Your task to perform on an android device: allow notifications from all sites in the chrome app Image 0: 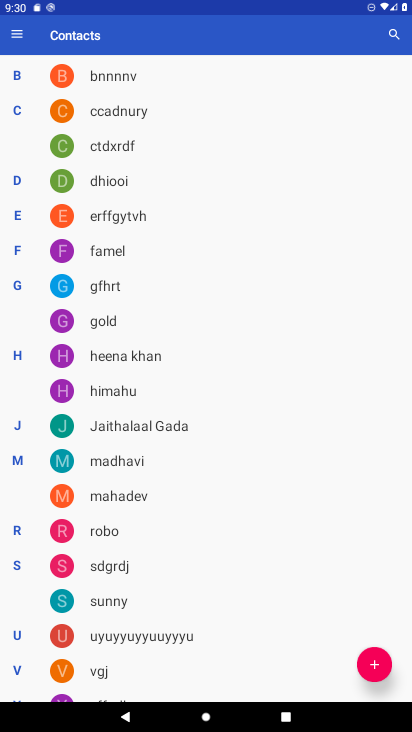
Step 0: press home button
Your task to perform on an android device: allow notifications from all sites in the chrome app Image 1: 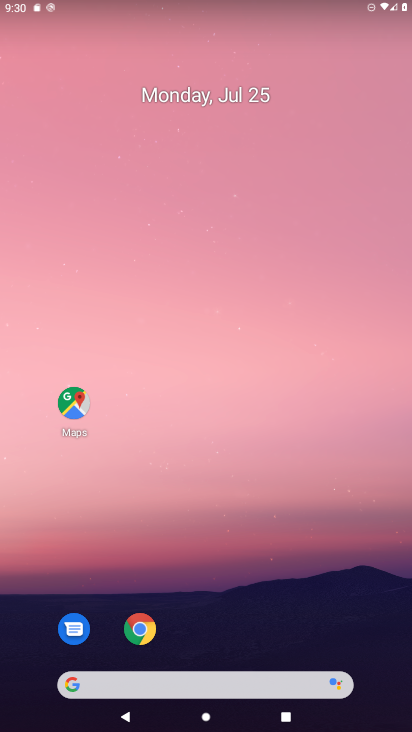
Step 1: drag from (259, 584) to (283, 718)
Your task to perform on an android device: allow notifications from all sites in the chrome app Image 2: 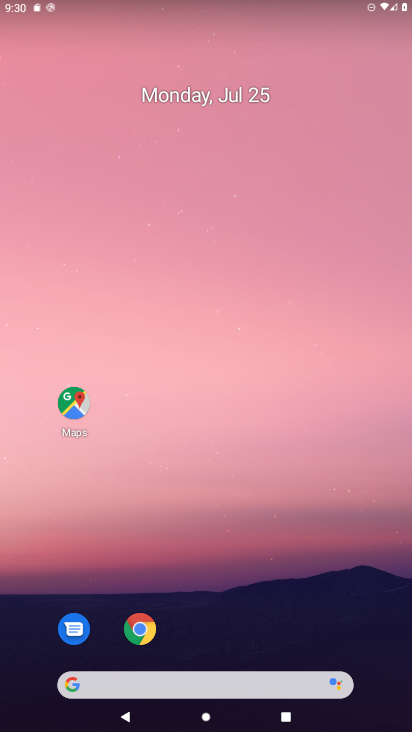
Step 2: click (139, 636)
Your task to perform on an android device: allow notifications from all sites in the chrome app Image 3: 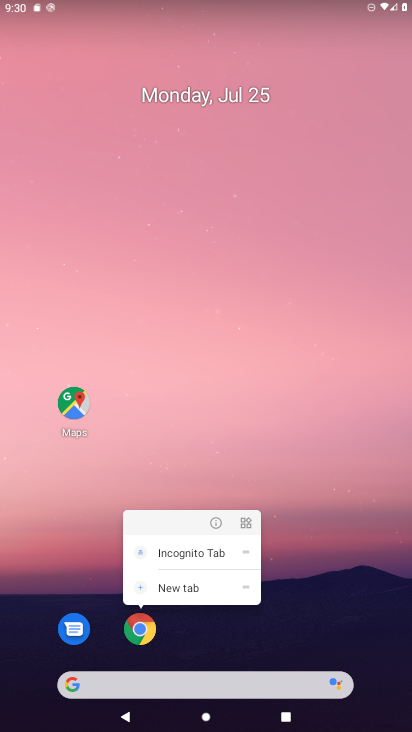
Step 3: click (139, 636)
Your task to perform on an android device: allow notifications from all sites in the chrome app Image 4: 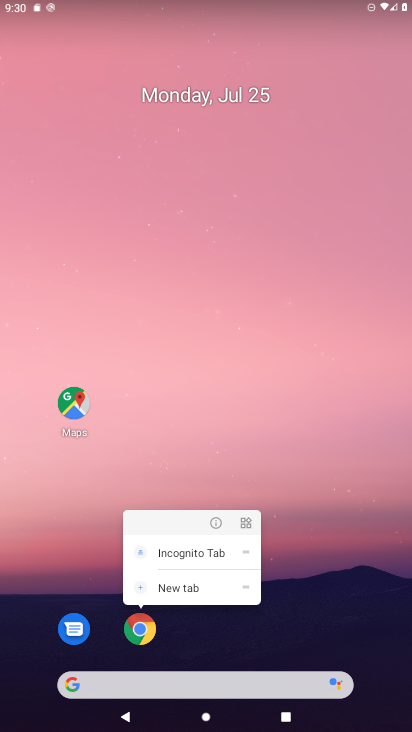
Step 4: click (139, 636)
Your task to perform on an android device: allow notifications from all sites in the chrome app Image 5: 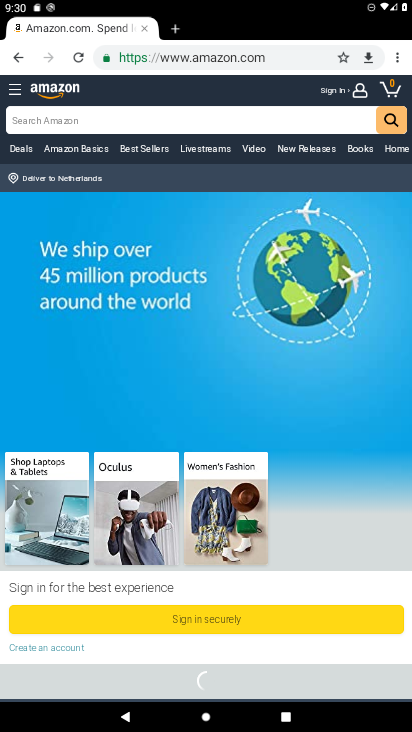
Step 5: drag from (397, 60) to (278, 396)
Your task to perform on an android device: allow notifications from all sites in the chrome app Image 6: 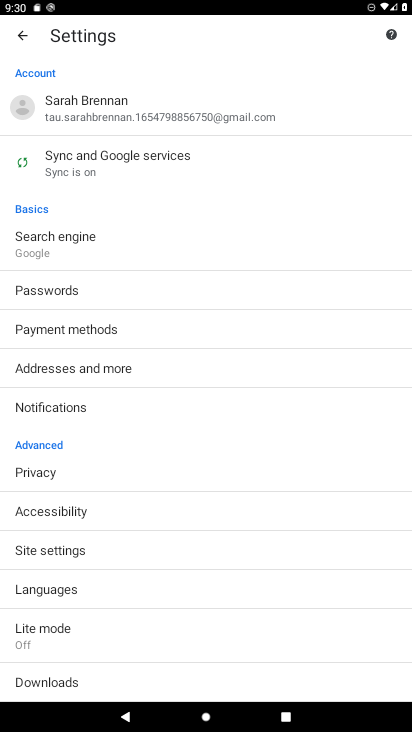
Step 6: click (34, 543)
Your task to perform on an android device: allow notifications from all sites in the chrome app Image 7: 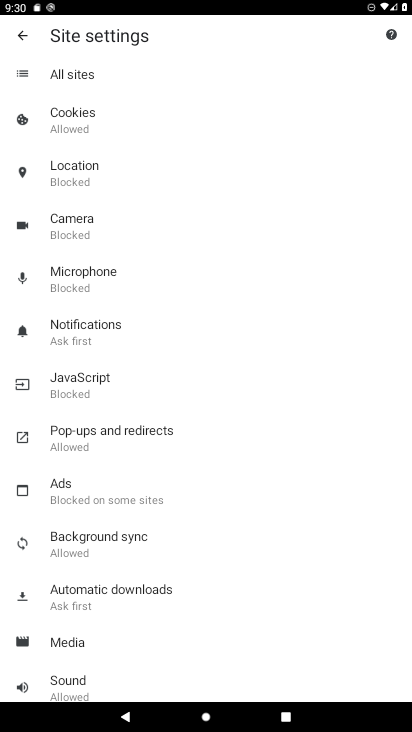
Step 7: click (70, 319)
Your task to perform on an android device: allow notifications from all sites in the chrome app Image 8: 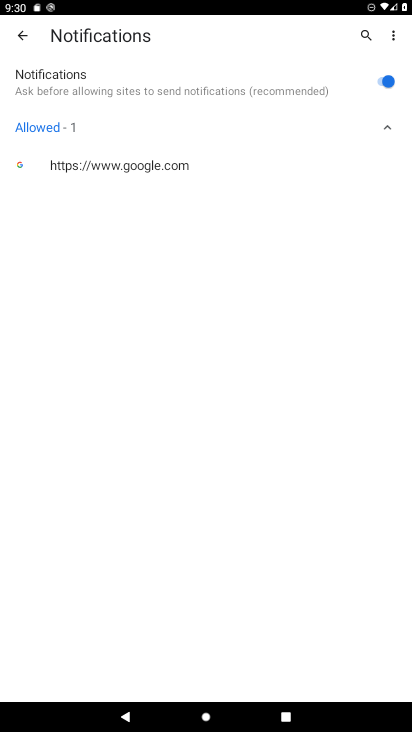
Step 8: task complete